Your task to perform on an android device: delete the emails in spam in the gmail app Image 0: 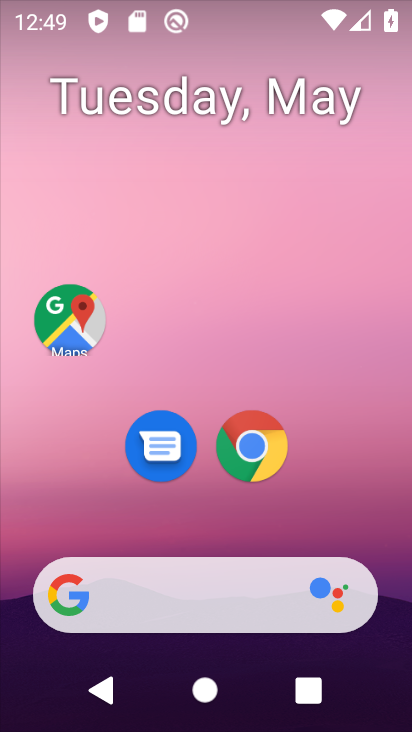
Step 0: drag from (154, 501) to (193, 228)
Your task to perform on an android device: delete the emails in spam in the gmail app Image 1: 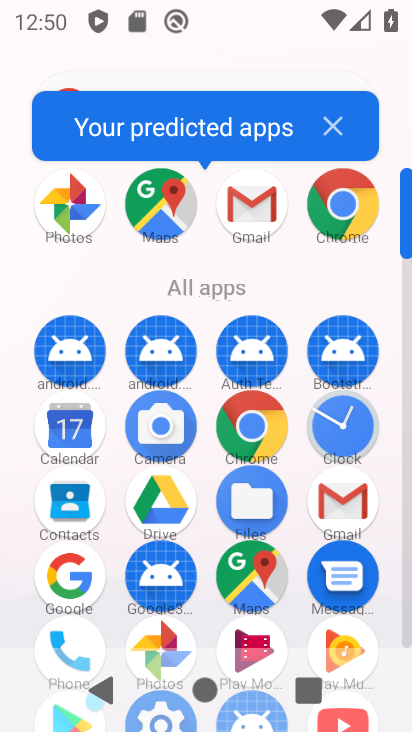
Step 1: click (237, 195)
Your task to perform on an android device: delete the emails in spam in the gmail app Image 2: 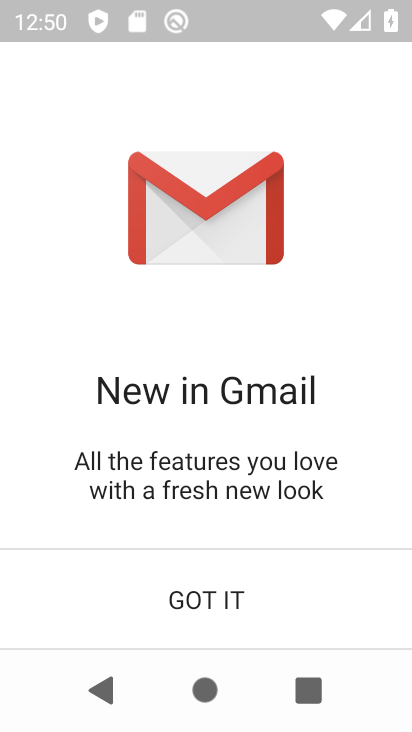
Step 2: click (205, 595)
Your task to perform on an android device: delete the emails in spam in the gmail app Image 3: 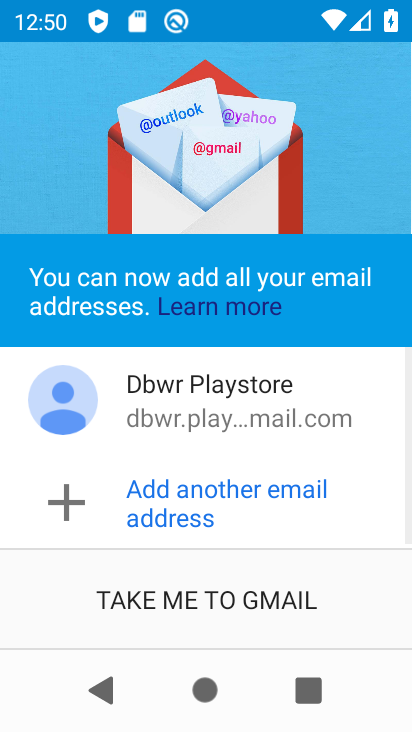
Step 3: click (233, 612)
Your task to perform on an android device: delete the emails in spam in the gmail app Image 4: 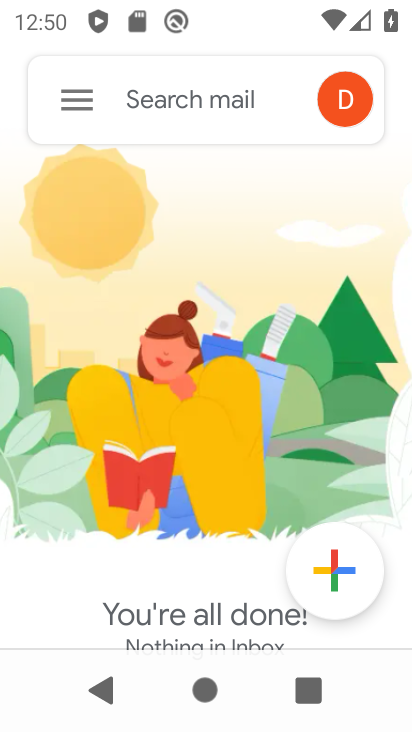
Step 4: click (68, 98)
Your task to perform on an android device: delete the emails in spam in the gmail app Image 5: 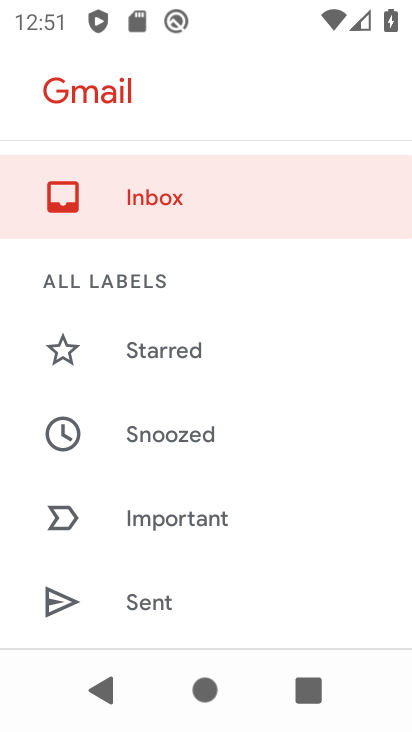
Step 5: drag from (192, 546) to (253, 130)
Your task to perform on an android device: delete the emails in spam in the gmail app Image 6: 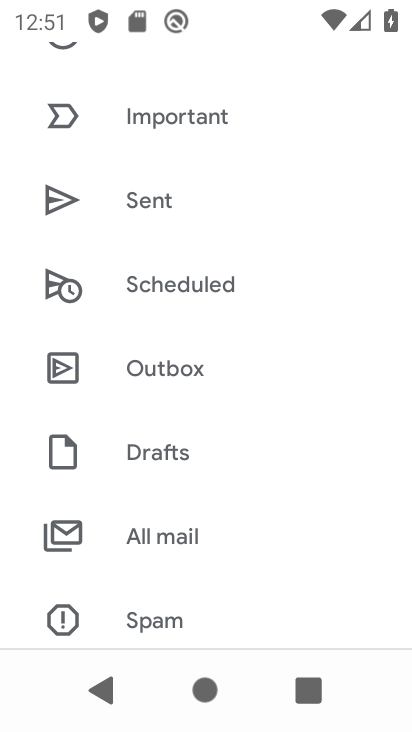
Step 6: click (163, 534)
Your task to perform on an android device: delete the emails in spam in the gmail app Image 7: 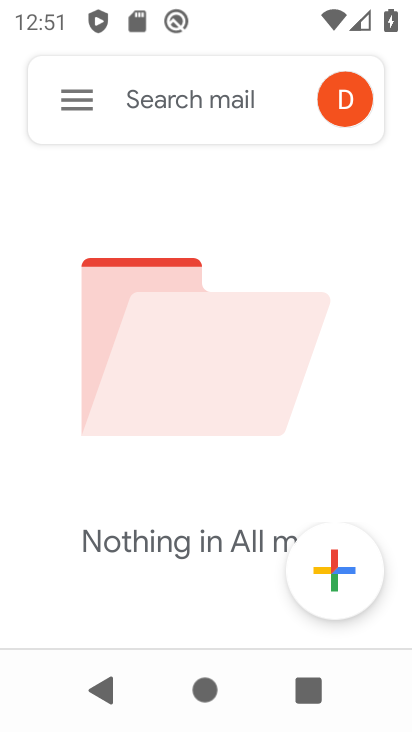
Step 7: task complete